Your task to perform on an android device: Open eBay Image 0: 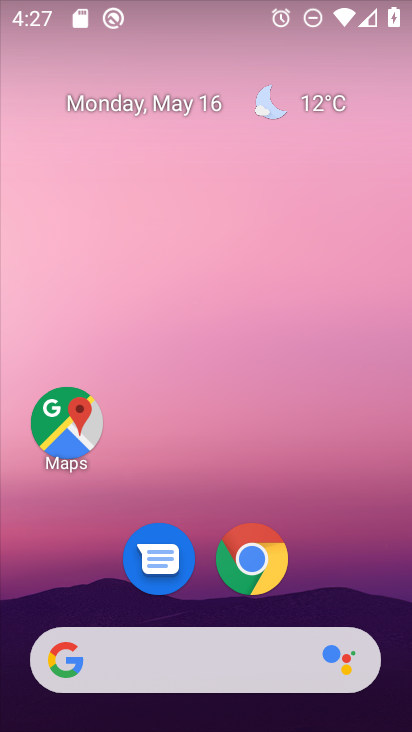
Step 0: click (263, 575)
Your task to perform on an android device: Open eBay Image 1: 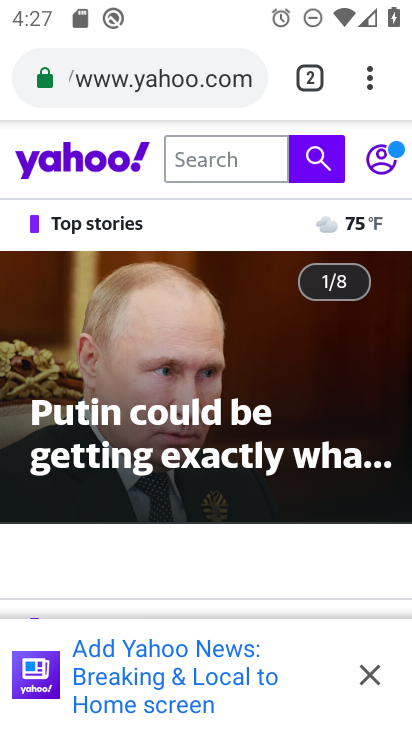
Step 1: click (177, 88)
Your task to perform on an android device: Open eBay Image 2: 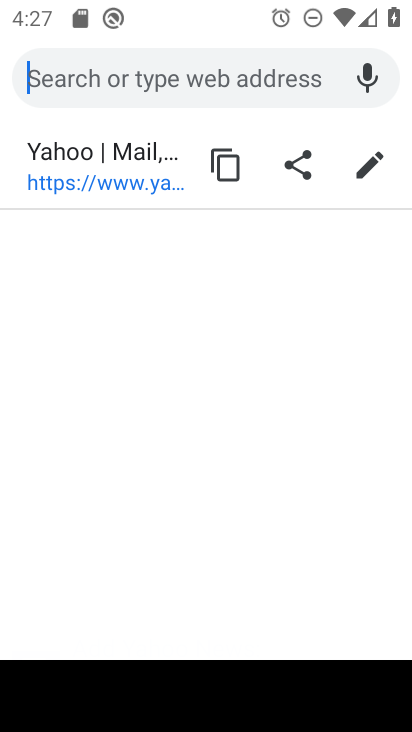
Step 2: type "ebay"
Your task to perform on an android device: Open eBay Image 3: 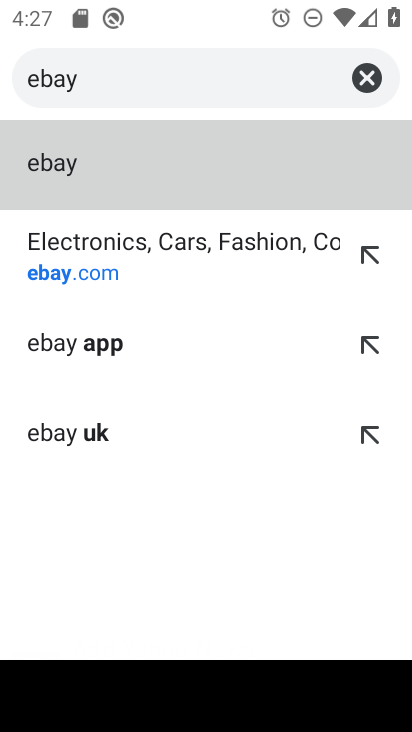
Step 3: click (103, 271)
Your task to perform on an android device: Open eBay Image 4: 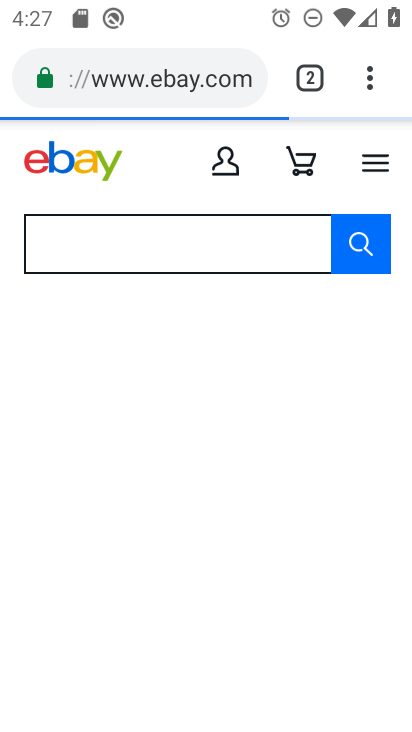
Step 4: task complete